Your task to perform on an android device: Open the phone app and click the voicemail tab. Image 0: 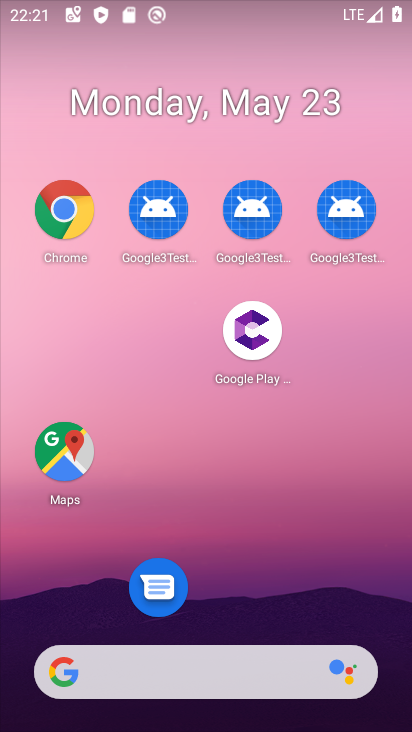
Step 0: drag from (257, 540) to (263, 120)
Your task to perform on an android device: Open the phone app and click the voicemail tab. Image 1: 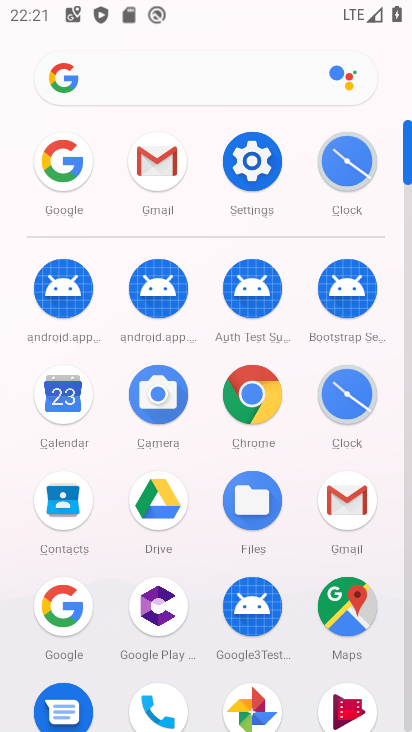
Step 1: drag from (190, 657) to (220, 192)
Your task to perform on an android device: Open the phone app and click the voicemail tab. Image 2: 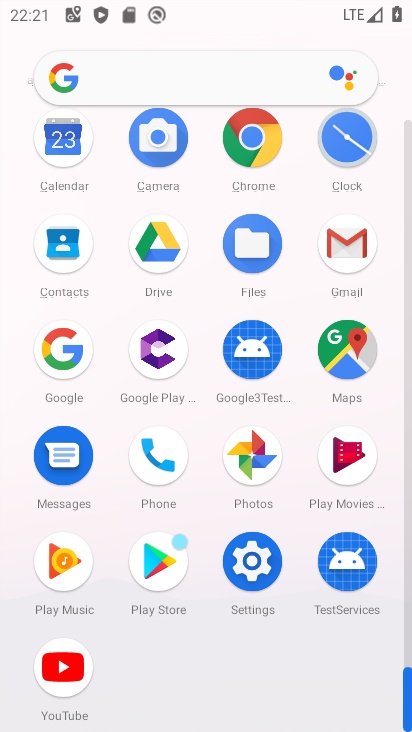
Step 2: click (165, 456)
Your task to perform on an android device: Open the phone app and click the voicemail tab. Image 3: 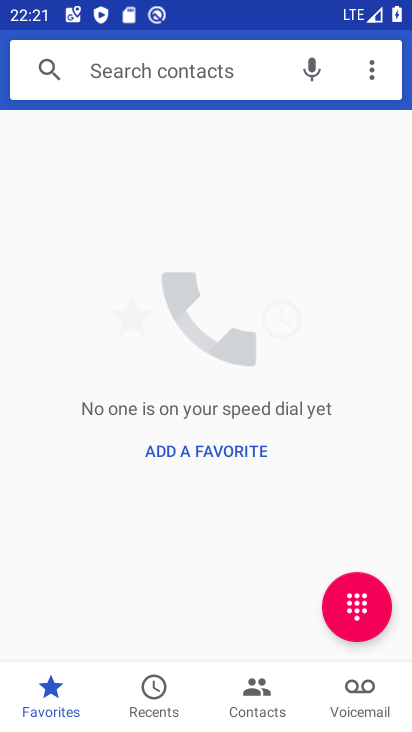
Step 3: click (397, 698)
Your task to perform on an android device: Open the phone app and click the voicemail tab. Image 4: 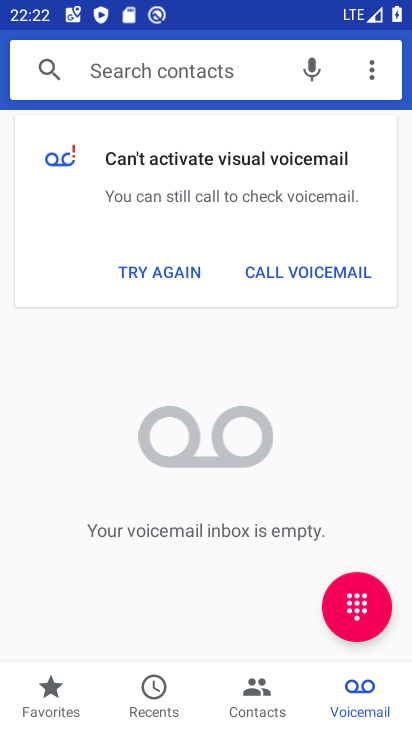
Step 4: task complete